Your task to perform on an android device: toggle priority inbox in the gmail app Image 0: 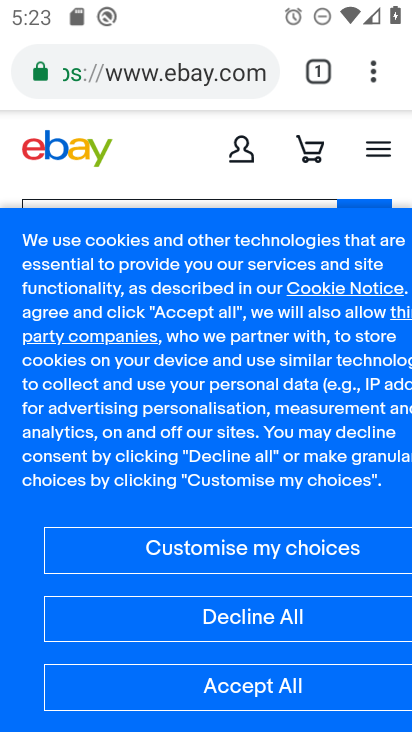
Step 0: press home button
Your task to perform on an android device: toggle priority inbox in the gmail app Image 1: 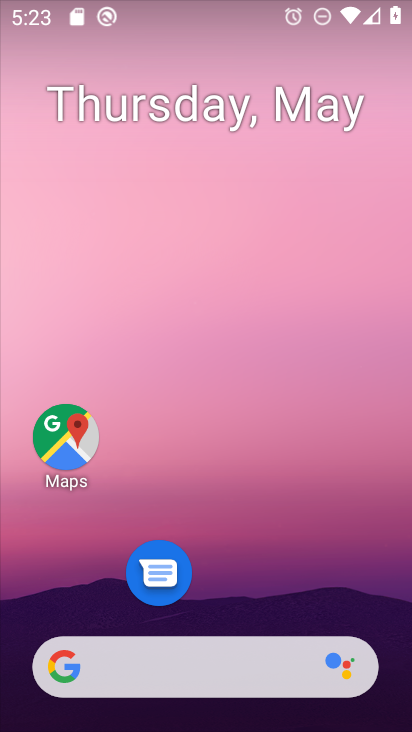
Step 1: click (222, 171)
Your task to perform on an android device: toggle priority inbox in the gmail app Image 2: 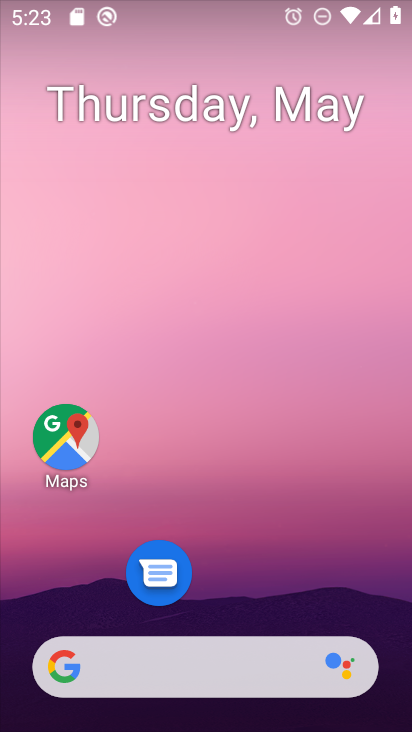
Step 2: drag from (231, 579) to (180, 32)
Your task to perform on an android device: toggle priority inbox in the gmail app Image 3: 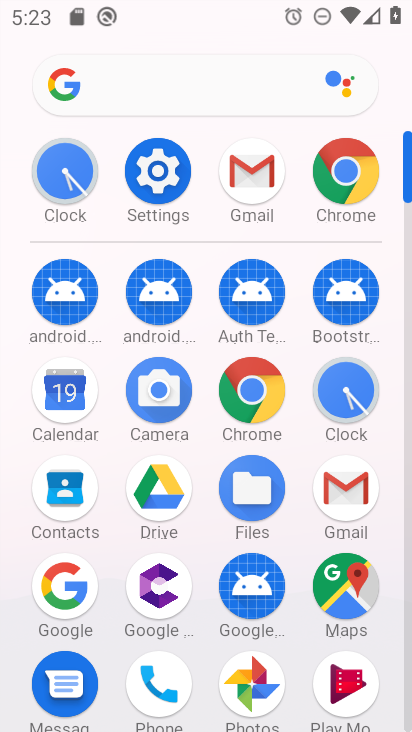
Step 3: click (254, 196)
Your task to perform on an android device: toggle priority inbox in the gmail app Image 4: 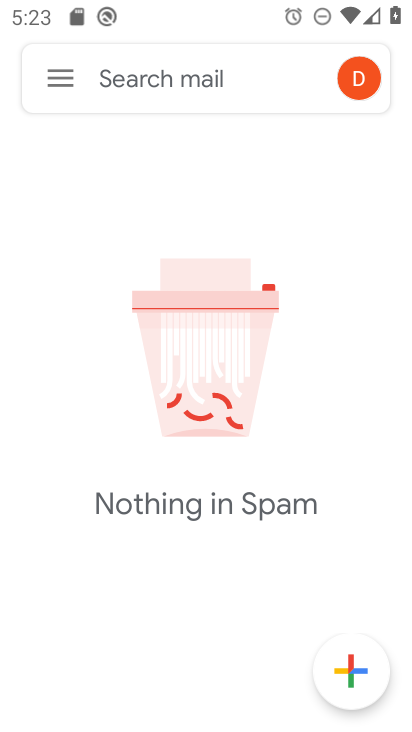
Step 4: click (62, 73)
Your task to perform on an android device: toggle priority inbox in the gmail app Image 5: 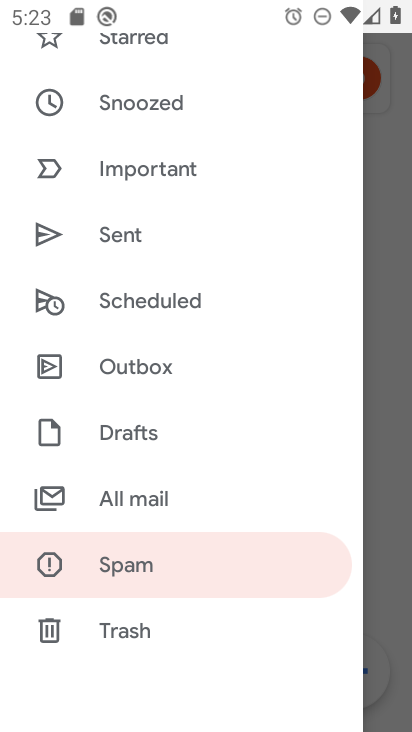
Step 5: drag from (180, 640) to (172, 349)
Your task to perform on an android device: toggle priority inbox in the gmail app Image 6: 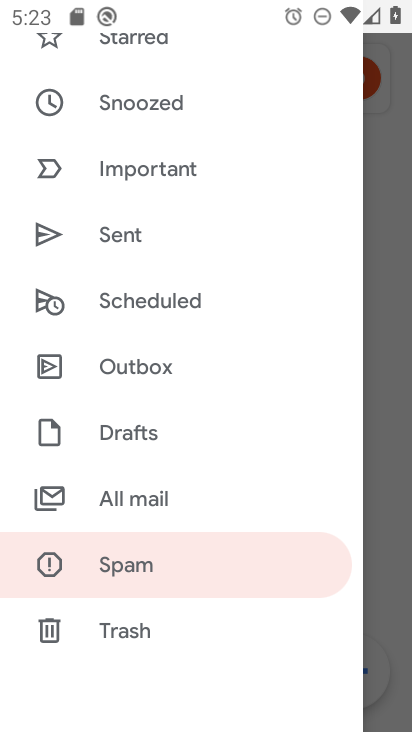
Step 6: drag from (189, 615) to (239, 169)
Your task to perform on an android device: toggle priority inbox in the gmail app Image 7: 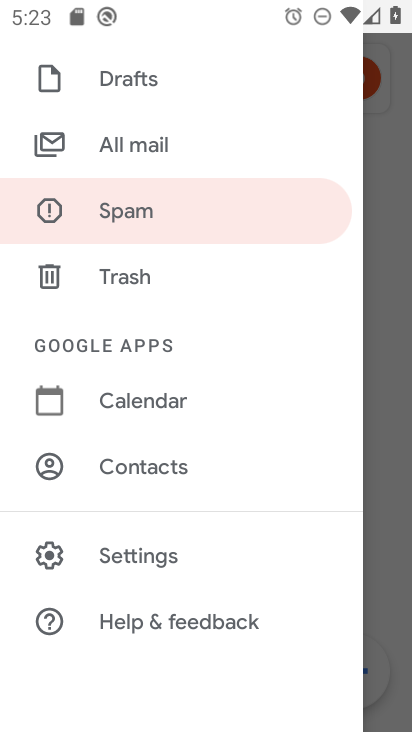
Step 7: click (149, 556)
Your task to perform on an android device: toggle priority inbox in the gmail app Image 8: 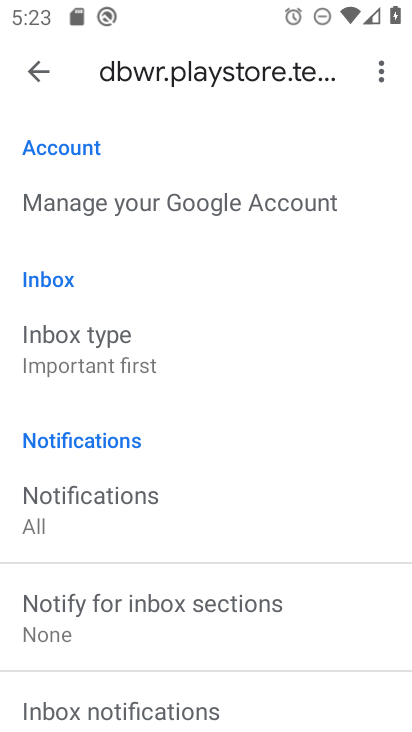
Step 8: click (98, 382)
Your task to perform on an android device: toggle priority inbox in the gmail app Image 9: 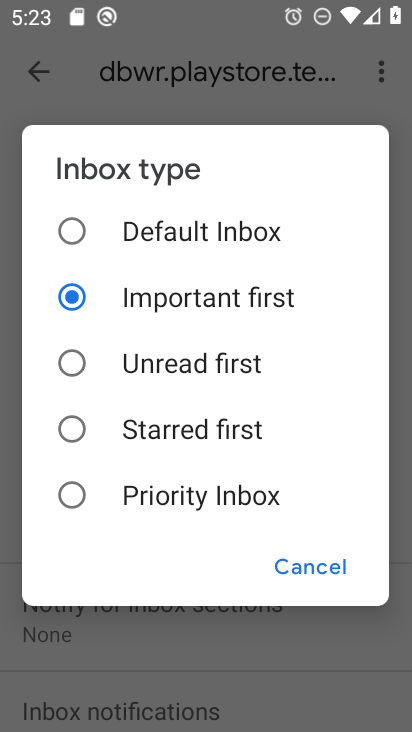
Step 9: click (72, 500)
Your task to perform on an android device: toggle priority inbox in the gmail app Image 10: 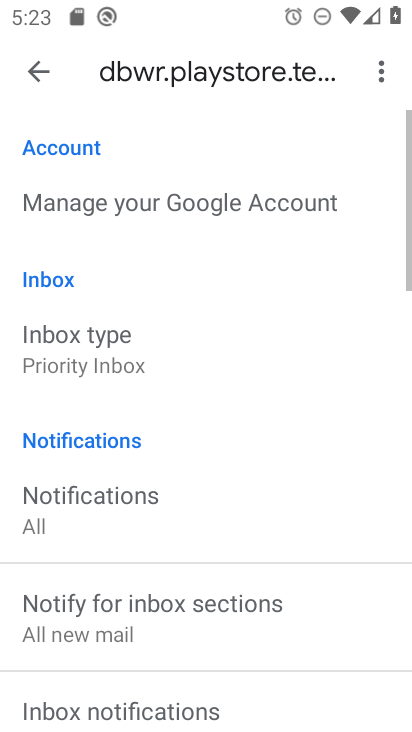
Step 10: task complete